Your task to perform on an android device: toggle pop-ups in chrome Image 0: 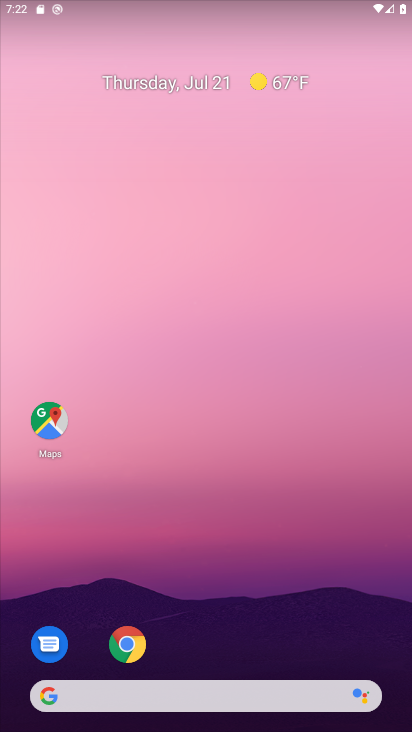
Step 0: click (135, 641)
Your task to perform on an android device: toggle pop-ups in chrome Image 1: 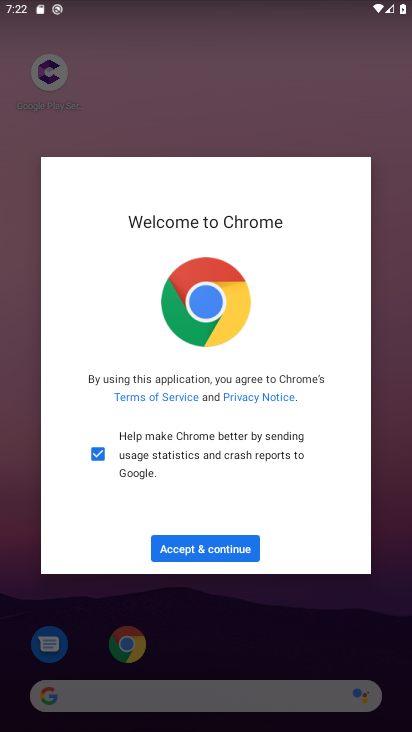
Step 1: click (224, 553)
Your task to perform on an android device: toggle pop-ups in chrome Image 2: 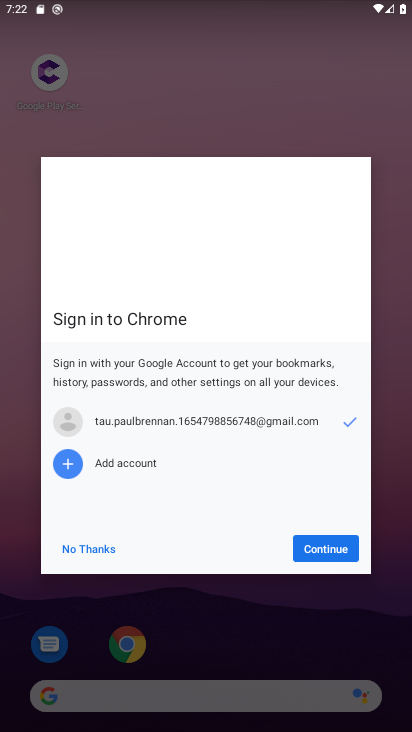
Step 2: click (361, 561)
Your task to perform on an android device: toggle pop-ups in chrome Image 3: 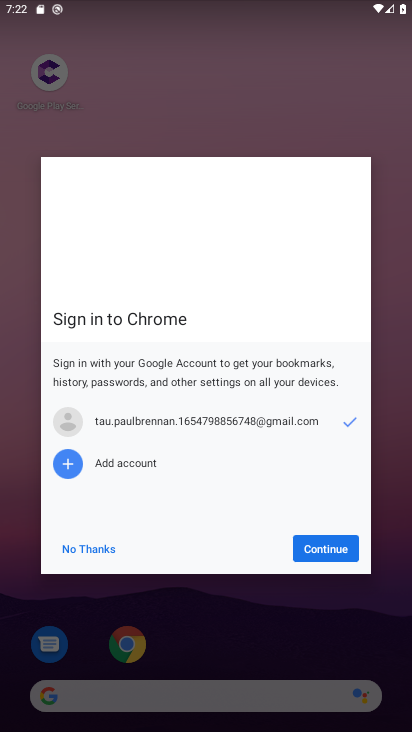
Step 3: click (343, 552)
Your task to perform on an android device: toggle pop-ups in chrome Image 4: 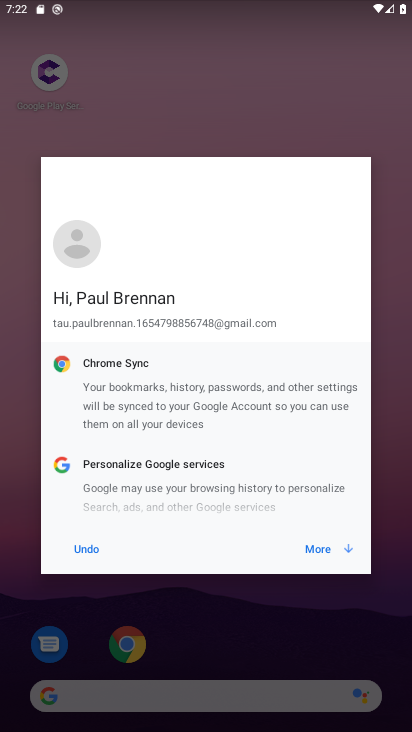
Step 4: click (321, 548)
Your task to perform on an android device: toggle pop-ups in chrome Image 5: 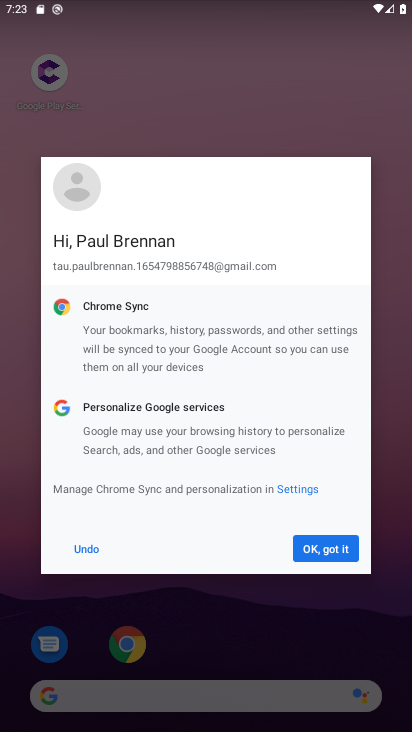
Step 5: click (312, 568)
Your task to perform on an android device: toggle pop-ups in chrome Image 6: 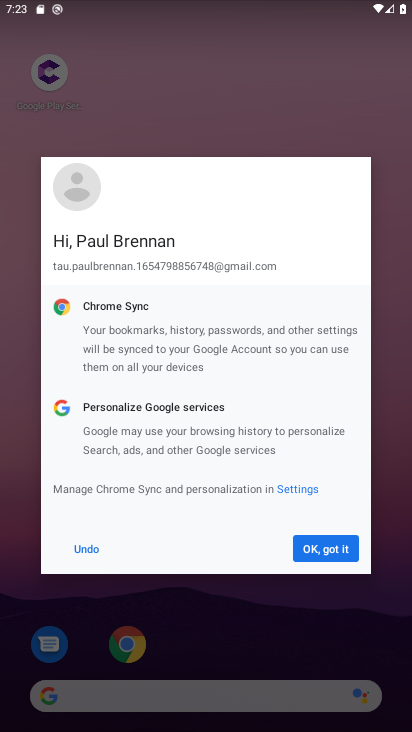
Step 6: click (309, 548)
Your task to perform on an android device: toggle pop-ups in chrome Image 7: 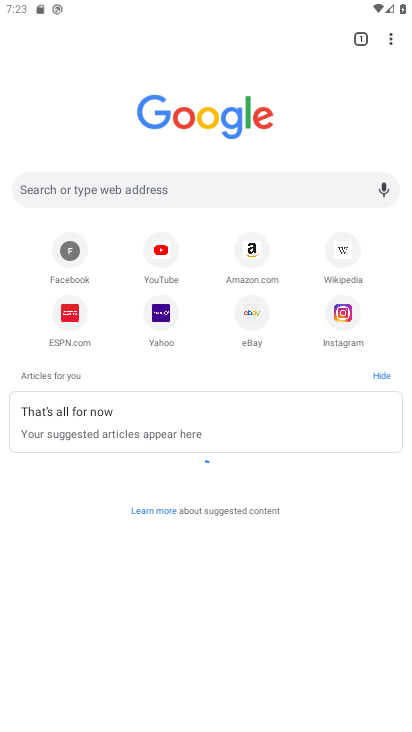
Step 7: click (391, 37)
Your task to perform on an android device: toggle pop-ups in chrome Image 8: 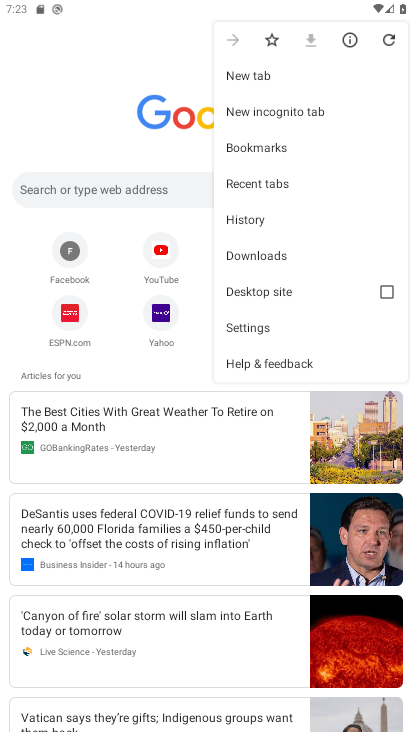
Step 8: click (244, 319)
Your task to perform on an android device: toggle pop-ups in chrome Image 9: 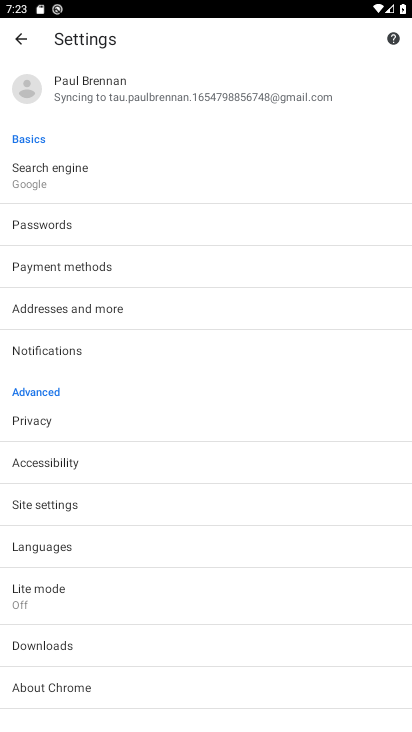
Step 9: click (65, 505)
Your task to perform on an android device: toggle pop-ups in chrome Image 10: 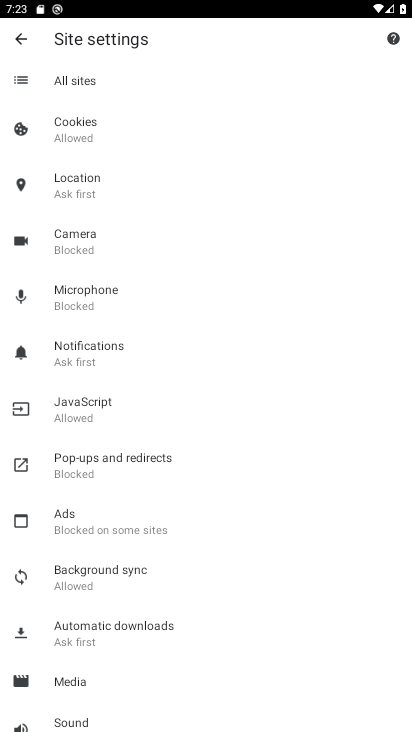
Step 10: click (97, 466)
Your task to perform on an android device: toggle pop-ups in chrome Image 11: 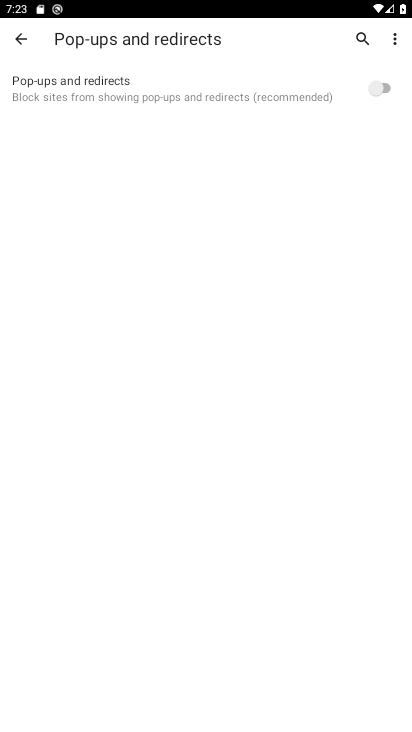
Step 11: click (352, 95)
Your task to perform on an android device: toggle pop-ups in chrome Image 12: 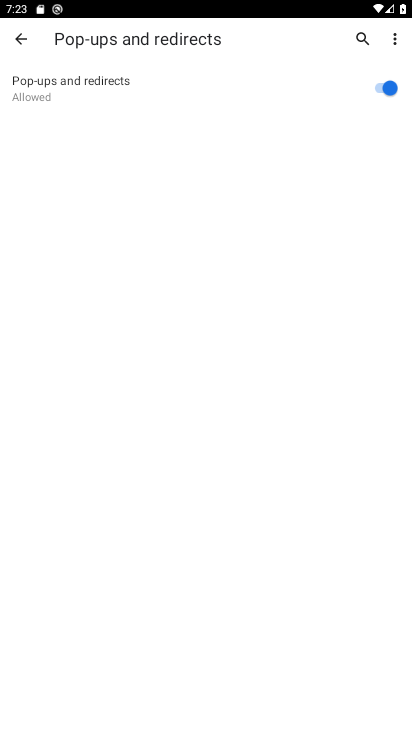
Step 12: task complete